Your task to perform on an android device: open the mobile data screen to see how much data has been used Image 0: 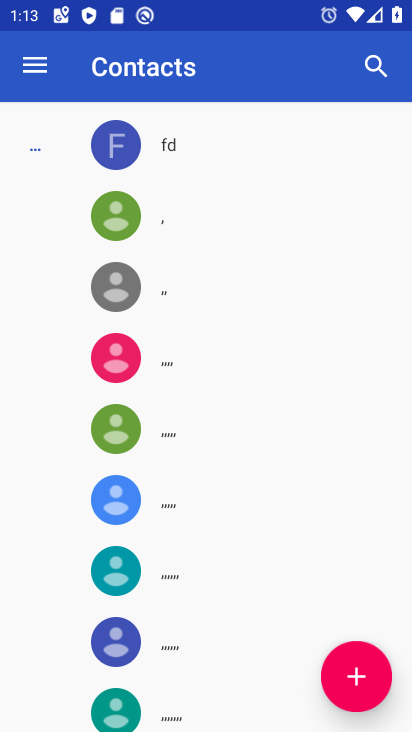
Step 0: press home button
Your task to perform on an android device: open the mobile data screen to see how much data has been used Image 1: 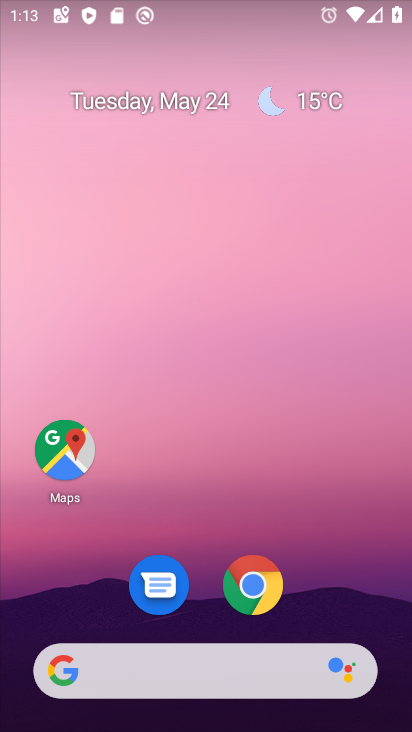
Step 1: drag from (263, 500) to (285, 41)
Your task to perform on an android device: open the mobile data screen to see how much data has been used Image 2: 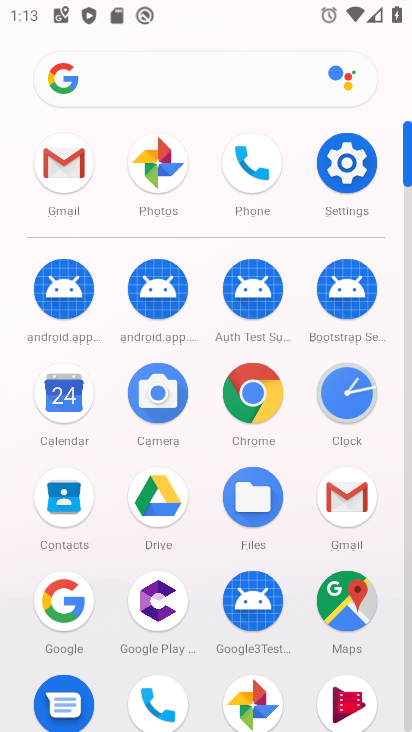
Step 2: click (344, 160)
Your task to perform on an android device: open the mobile data screen to see how much data has been used Image 3: 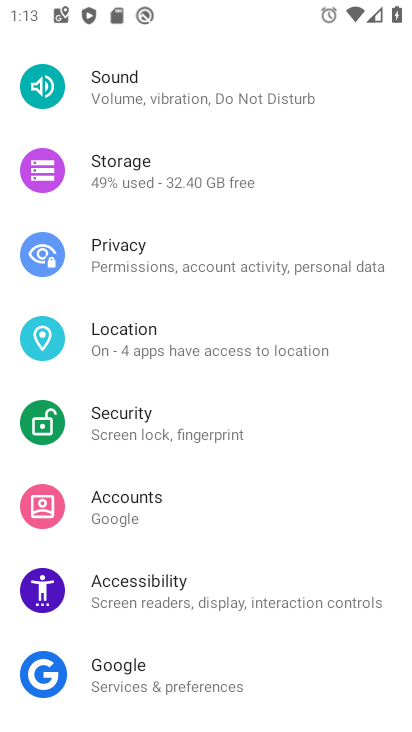
Step 3: drag from (264, 188) to (227, 588)
Your task to perform on an android device: open the mobile data screen to see how much data has been used Image 4: 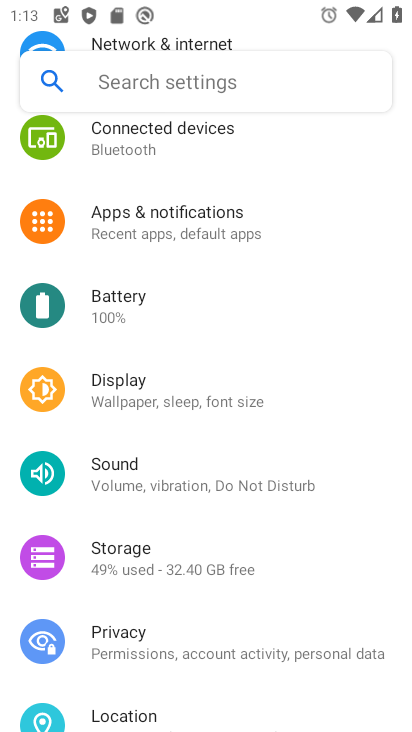
Step 4: drag from (242, 238) to (269, 527)
Your task to perform on an android device: open the mobile data screen to see how much data has been used Image 5: 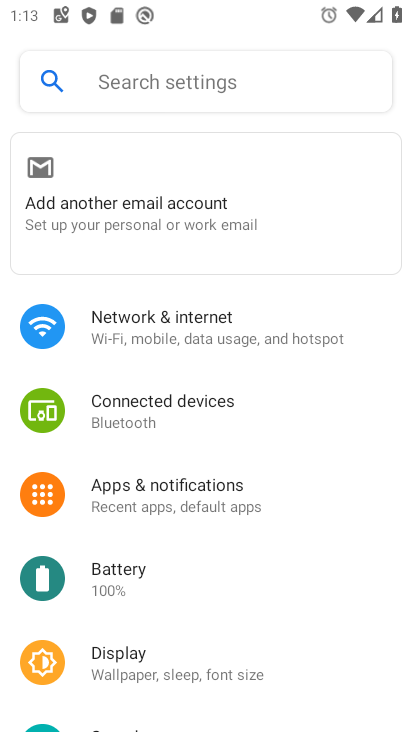
Step 5: click (255, 328)
Your task to perform on an android device: open the mobile data screen to see how much data has been used Image 6: 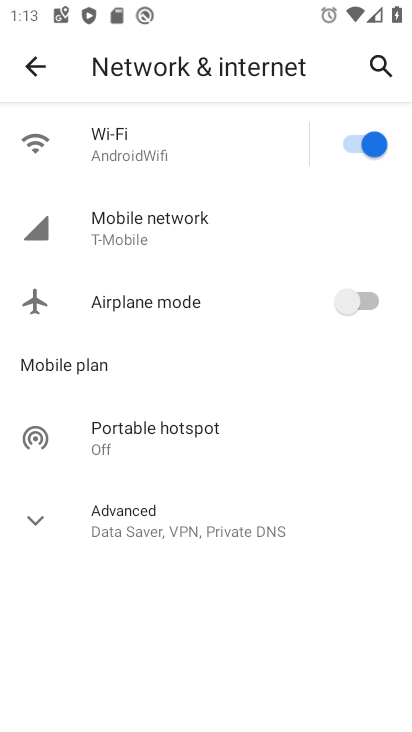
Step 6: click (236, 220)
Your task to perform on an android device: open the mobile data screen to see how much data has been used Image 7: 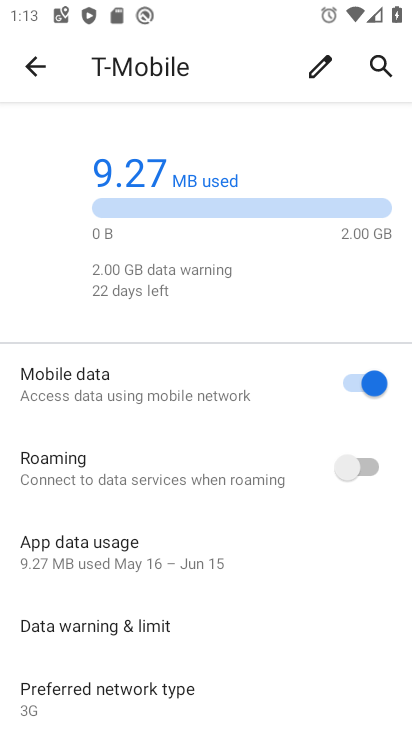
Step 7: task complete